Your task to perform on an android device: Open calendar and show me the third week of next month Image 0: 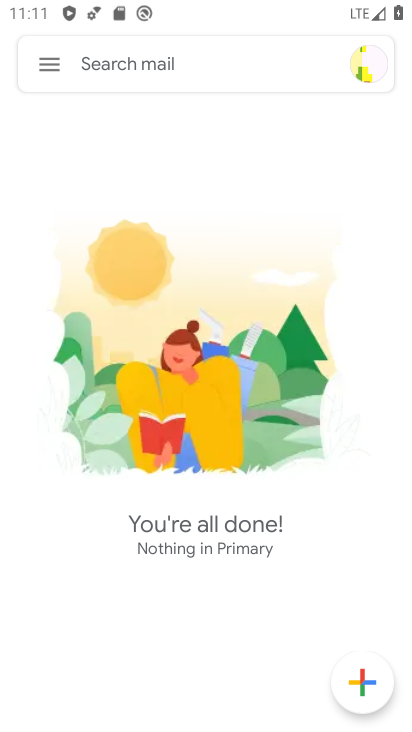
Step 0: press home button
Your task to perform on an android device: Open calendar and show me the third week of next month Image 1: 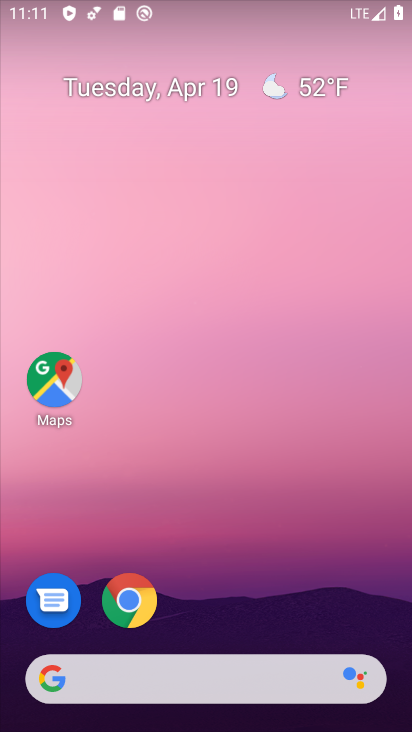
Step 1: drag from (194, 641) to (241, 15)
Your task to perform on an android device: Open calendar and show me the third week of next month Image 2: 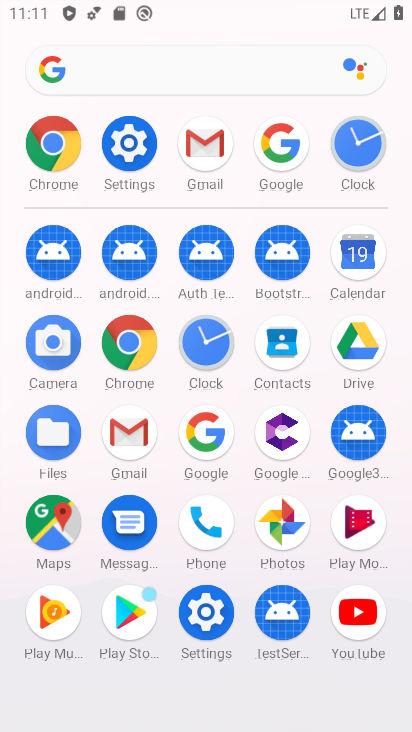
Step 2: click (356, 272)
Your task to perform on an android device: Open calendar and show me the third week of next month Image 3: 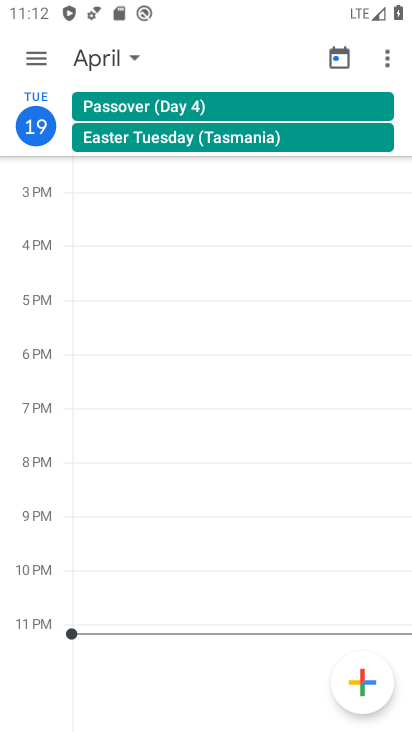
Step 3: click (34, 69)
Your task to perform on an android device: Open calendar and show me the third week of next month Image 4: 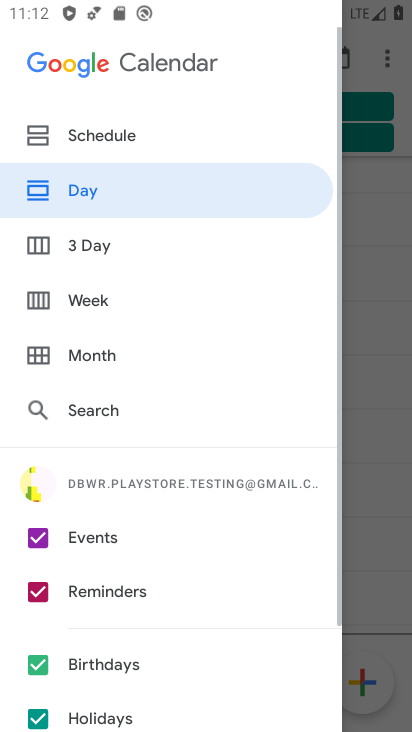
Step 4: click (82, 311)
Your task to perform on an android device: Open calendar and show me the third week of next month Image 5: 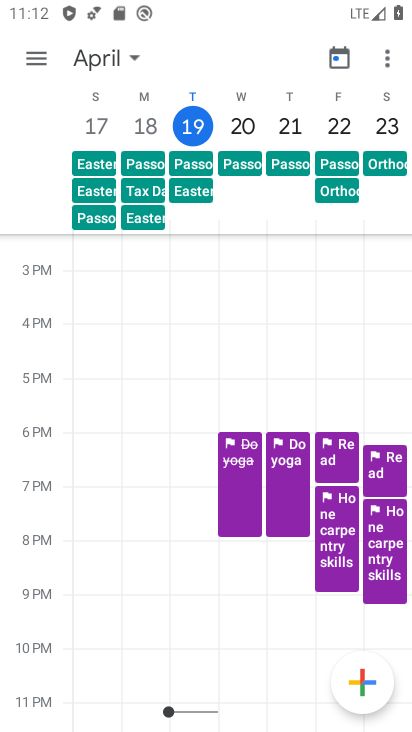
Step 5: task complete